Your task to perform on an android device: allow cookies in the chrome app Image 0: 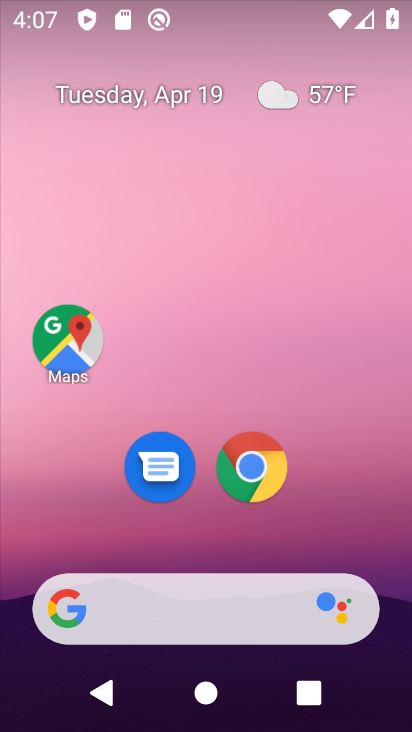
Step 0: click (242, 484)
Your task to perform on an android device: allow cookies in the chrome app Image 1: 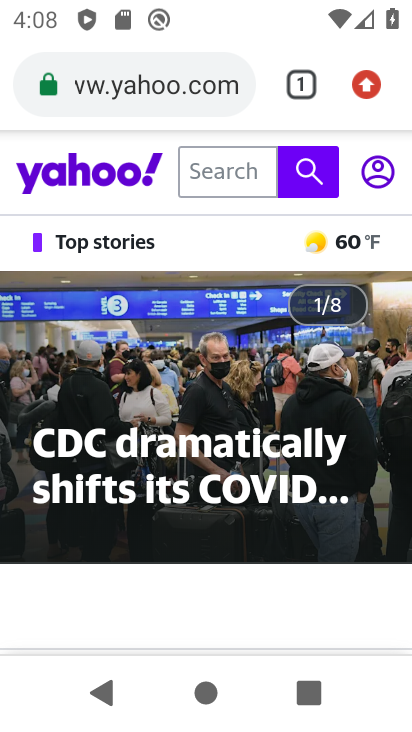
Step 1: click (369, 91)
Your task to perform on an android device: allow cookies in the chrome app Image 2: 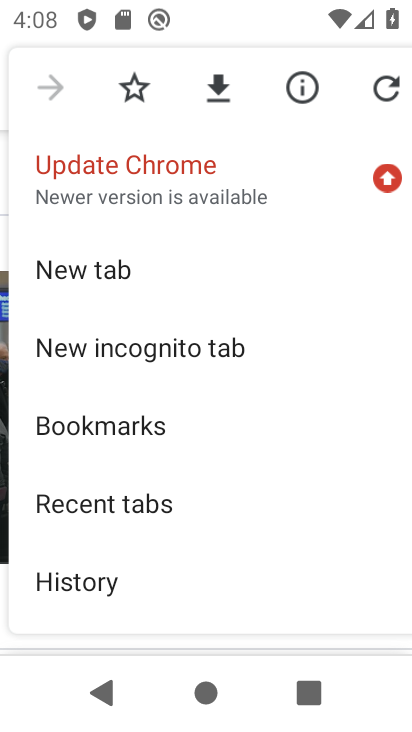
Step 2: drag from (241, 570) to (245, 409)
Your task to perform on an android device: allow cookies in the chrome app Image 3: 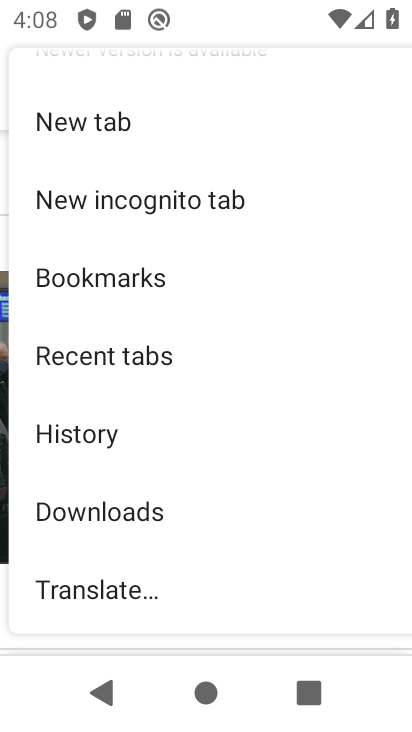
Step 3: drag from (227, 565) to (239, 318)
Your task to perform on an android device: allow cookies in the chrome app Image 4: 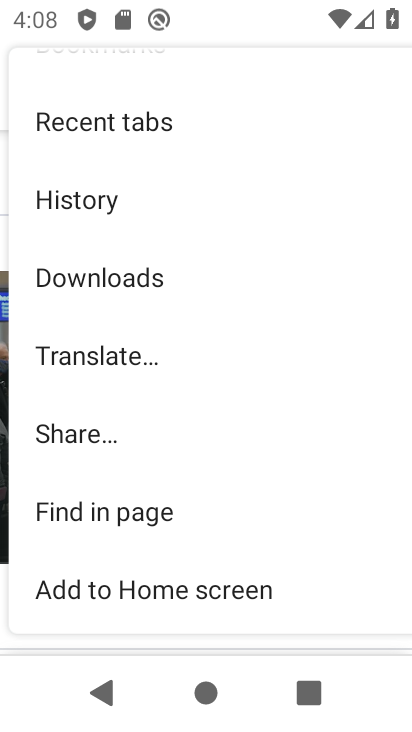
Step 4: drag from (211, 529) to (228, 321)
Your task to perform on an android device: allow cookies in the chrome app Image 5: 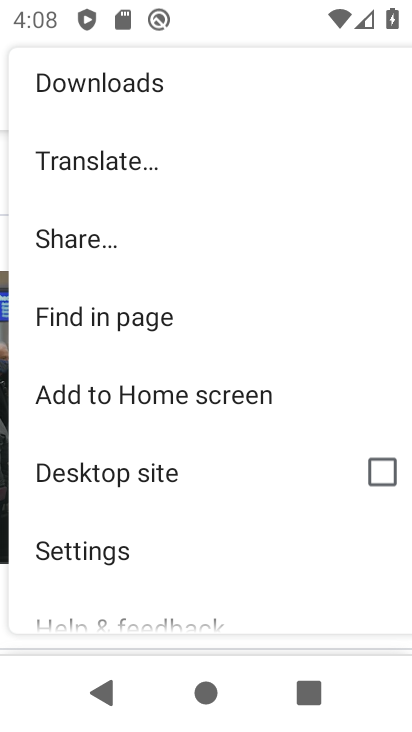
Step 5: click (179, 543)
Your task to perform on an android device: allow cookies in the chrome app Image 6: 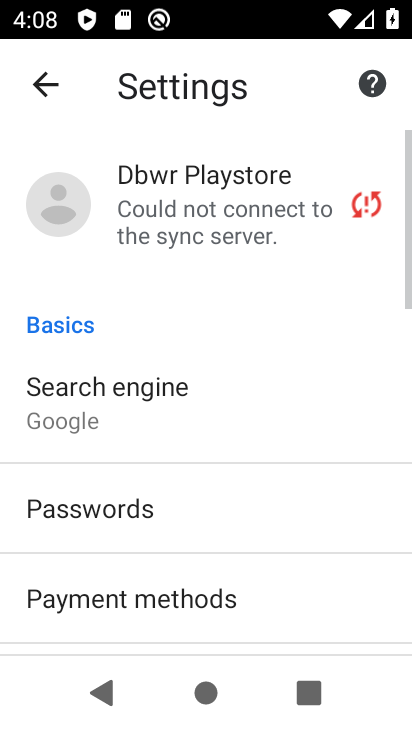
Step 6: drag from (179, 543) to (234, 279)
Your task to perform on an android device: allow cookies in the chrome app Image 7: 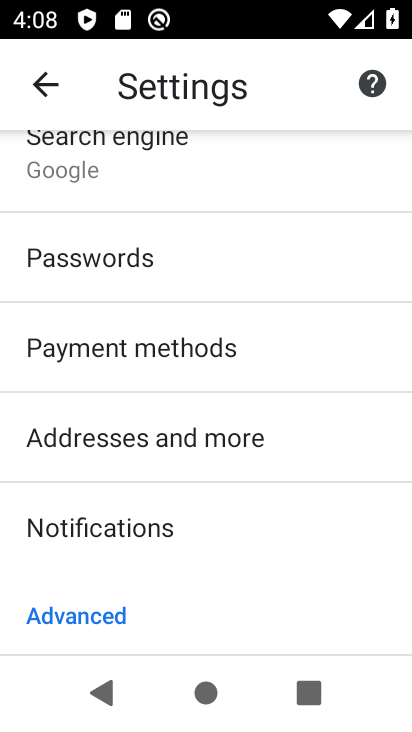
Step 7: drag from (209, 488) to (252, 277)
Your task to perform on an android device: allow cookies in the chrome app Image 8: 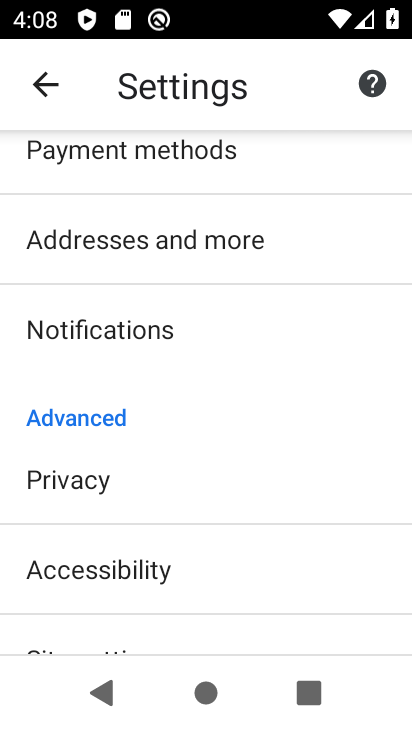
Step 8: drag from (170, 591) to (205, 413)
Your task to perform on an android device: allow cookies in the chrome app Image 9: 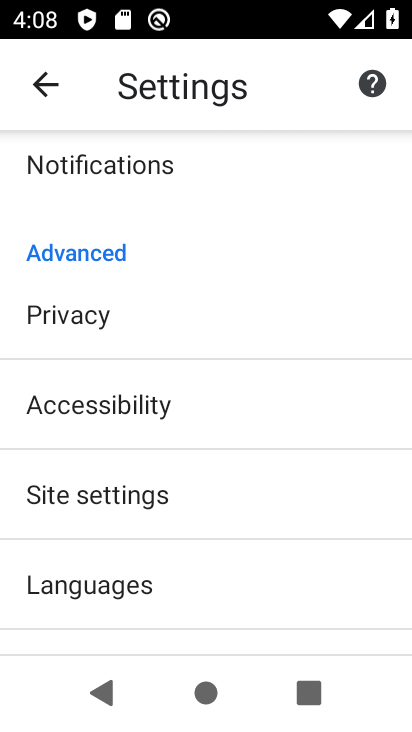
Step 9: click (141, 506)
Your task to perform on an android device: allow cookies in the chrome app Image 10: 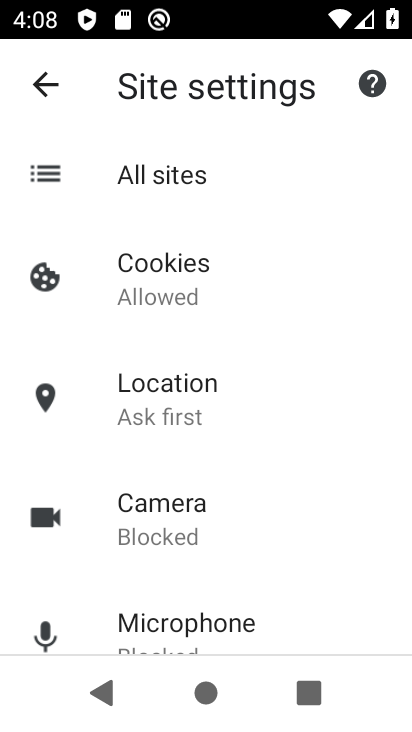
Step 10: click (223, 285)
Your task to perform on an android device: allow cookies in the chrome app Image 11: 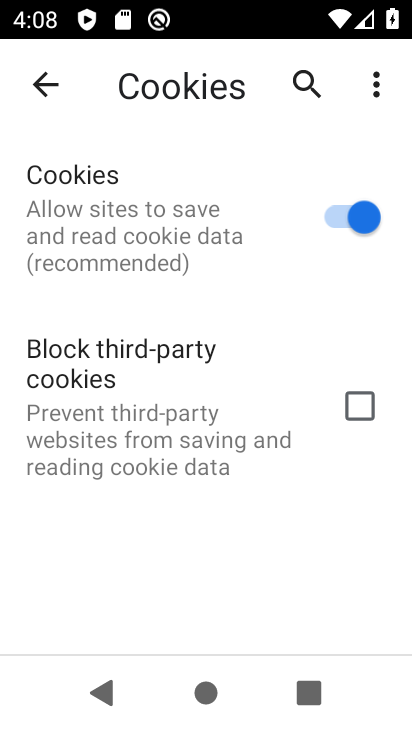
Step 11: task complete